Your task to perform on an android device: open the mobile data screen to see how much data has been used Image 0: 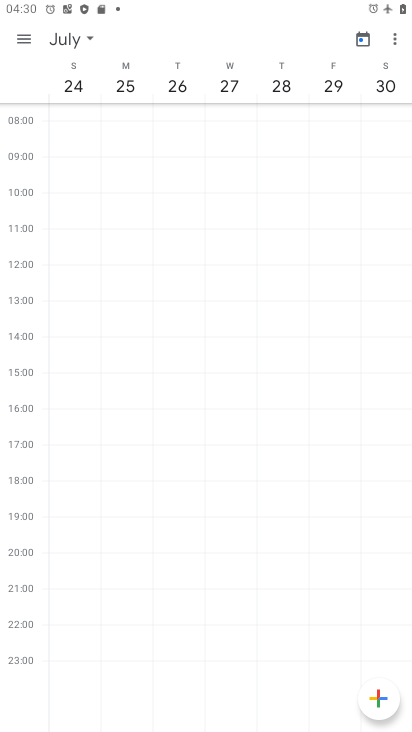
Step 0: press home button
Your task to perform on an android device: open the mobile data screen to see how much data has been used Image 1: 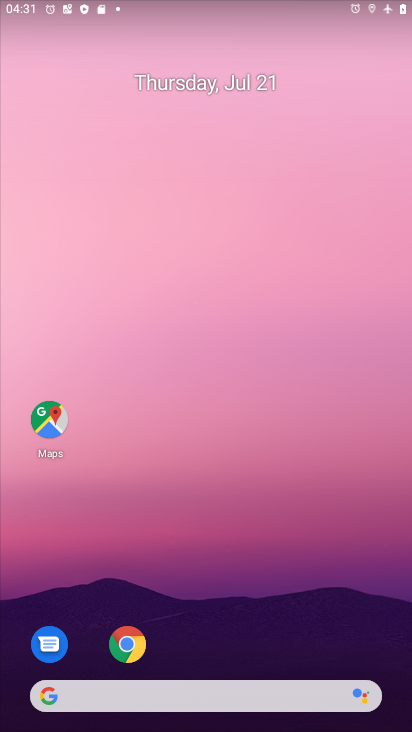
Step 1: drag from (264, 661) to (256, 11)
Your task to perform on an android device: open the mobile data screen to see how much data has been used Image 2: 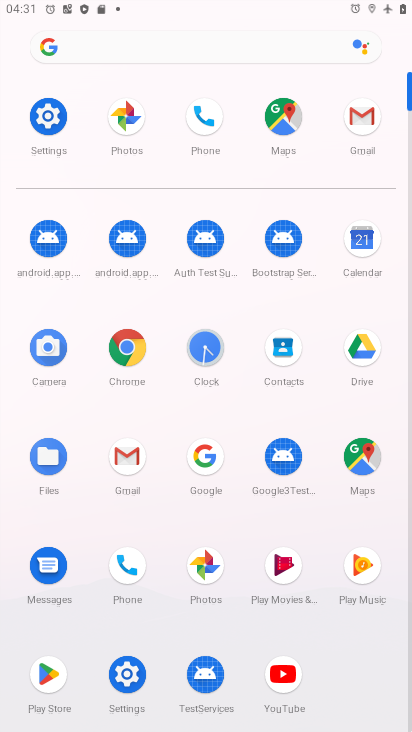
Step 2: click (47, 122)
Your task to perform on an android device: open the mobile data screen to see how much data has been used Image 3: 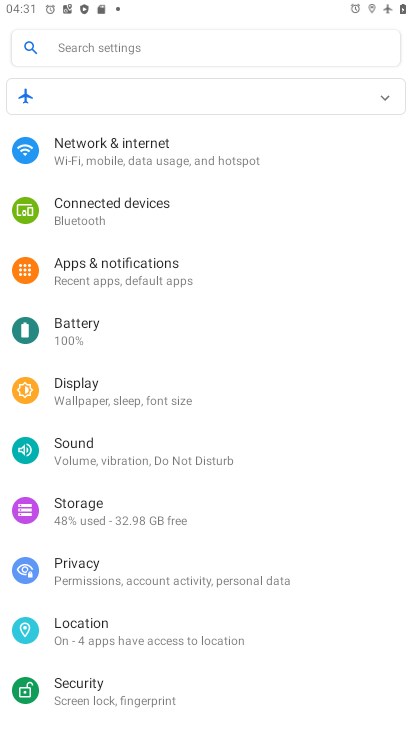
Step 3: click (115, 156)
Your task to perform on an android device: open the mobile data screen to see how much data has been used Image 4: 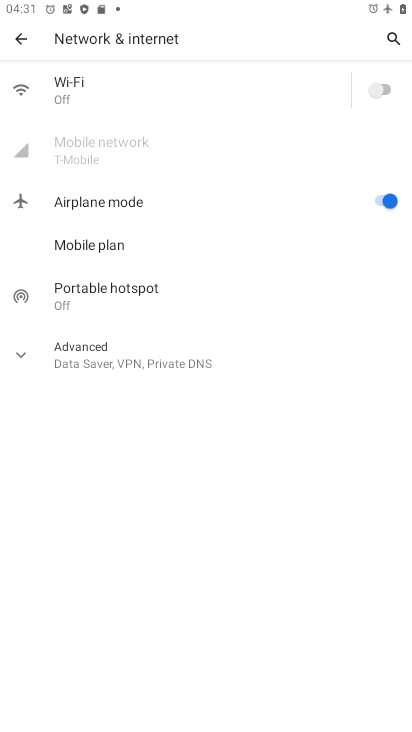
Step 4: task complete